Your task to perform on an android device: set an alarm Image 0: 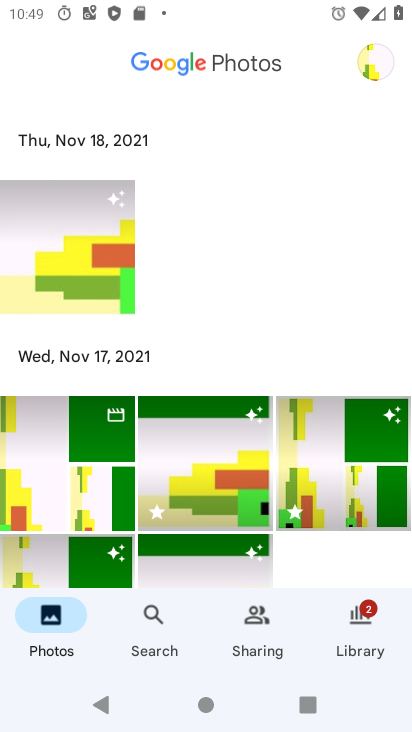
Step 0: press back button
Your task to perform on an android device: set an alarm Image 1: 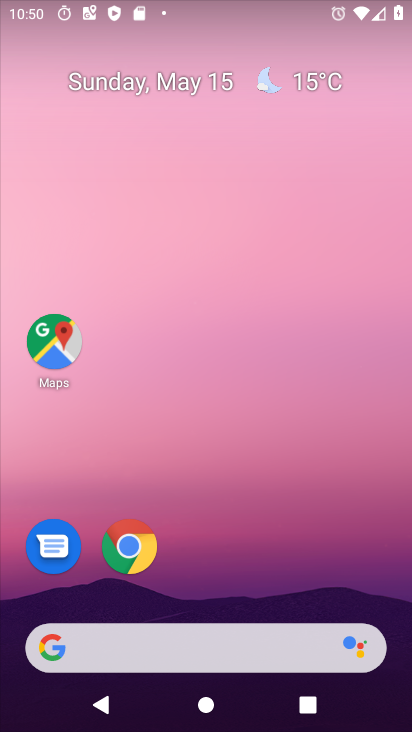
Step 1: drag from (266, 681) to (134, 110)
Your task to perform on an android device: set an alarm Image 2: 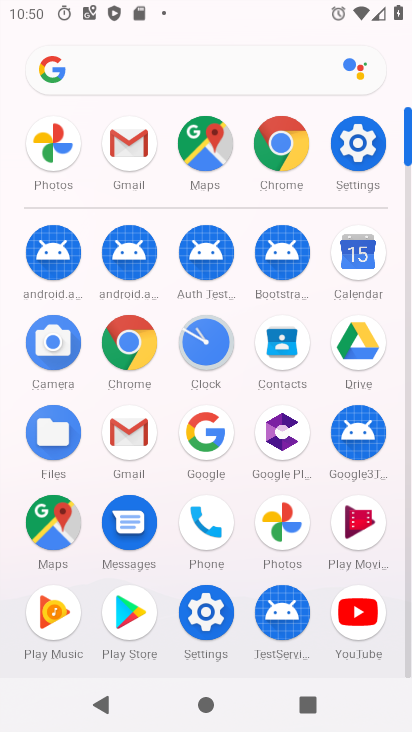
Step 2: drag from (226, 538) to (109, 27)
Your task to perform on an android device: set an alarm Image 3: 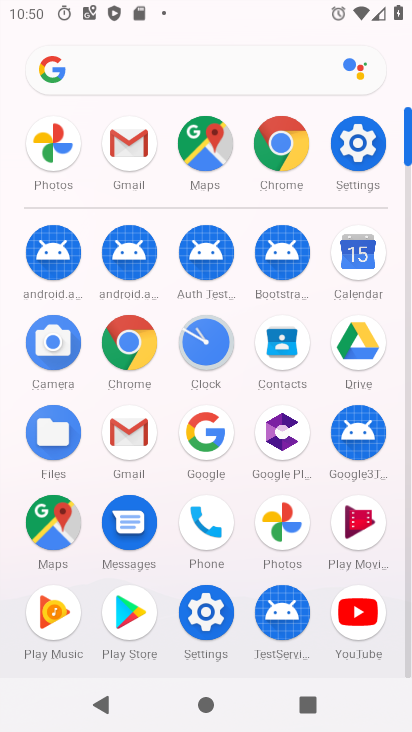
Step 3: click (203, 345)
Your task to perform on an android device: set an alarm Image 4: 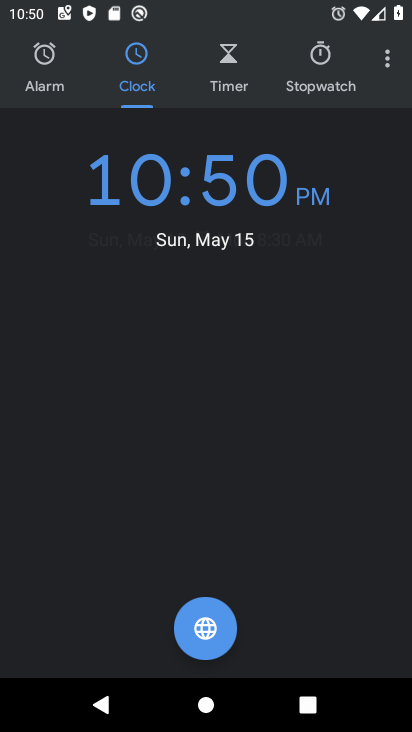
Step 4: click (198, 336)
Your task to perform on an android device: set an alarm Image 5: 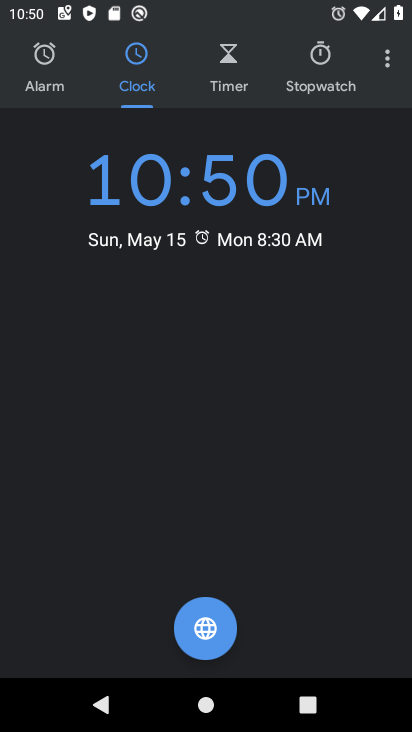
Step 5: click (218, 348)
Your task to perform on an android device: set an alarm Image 6: 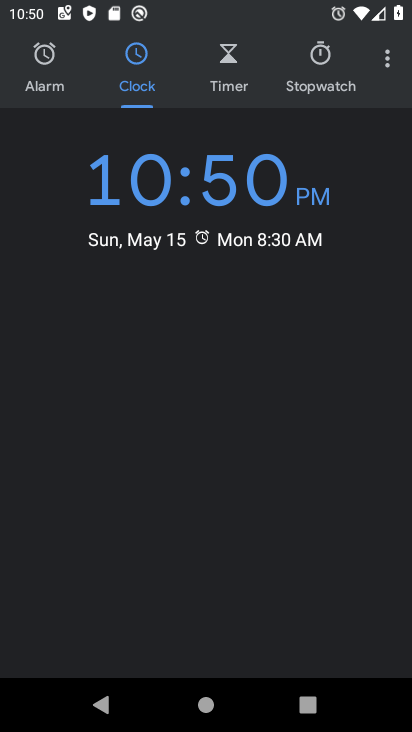
Step 6: click (209, 352)
Your task to perform on an android device: set an alarm Image 7: 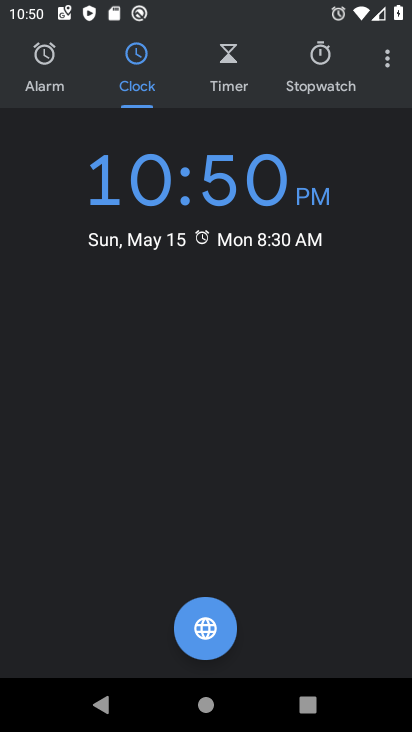
Step 7: click (36, 68)
Your task to perform on an android device: set an alarm Image 8: 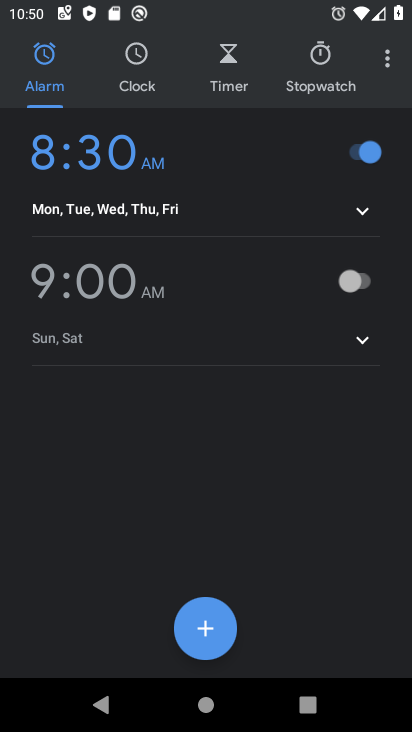
Step 8: task complete